Your task to perform on an android device: Check the news Image 0: 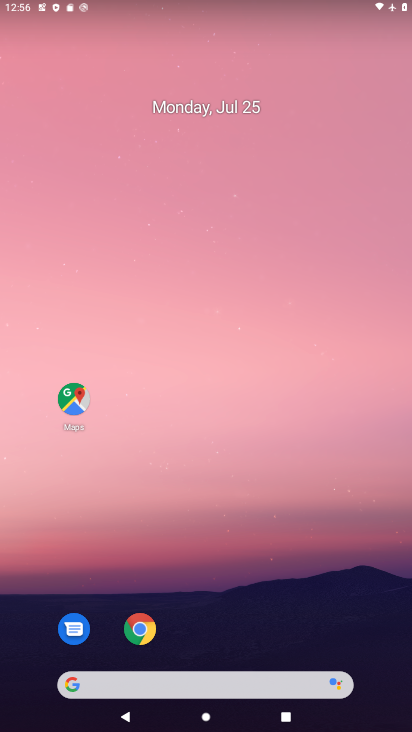
Step 0: drag from (170, 647) to (210, 103)
Your task to perform on an android device: Check the news Image 1: 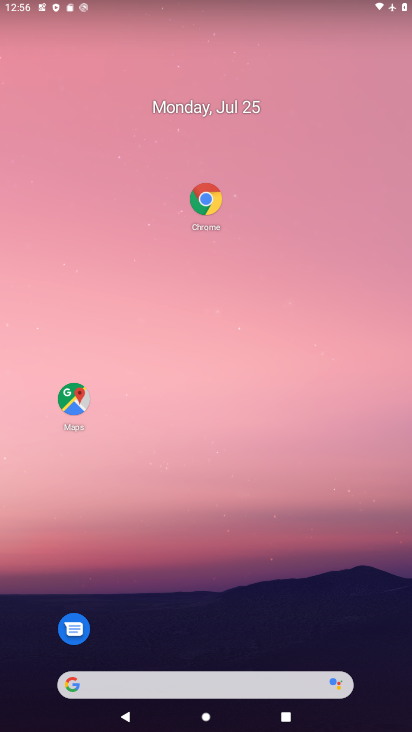
Step 1: drag from (273, 612) to (209, 254)
Your task to perform on an android device: Check the news Image 2: 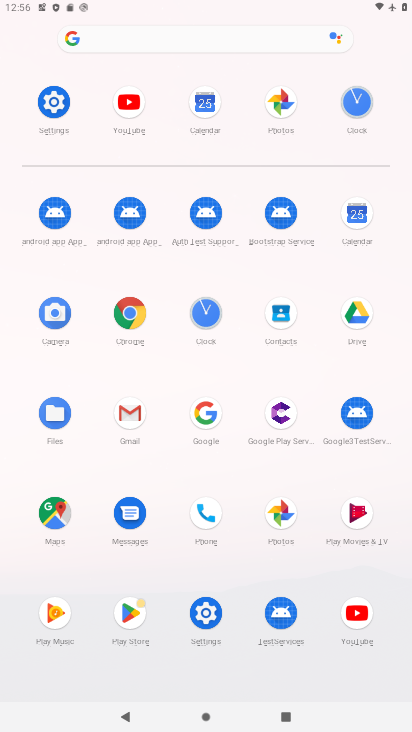
Step 2: click (39, 94)
Your task to perform on an android device: Check the news Image 3: 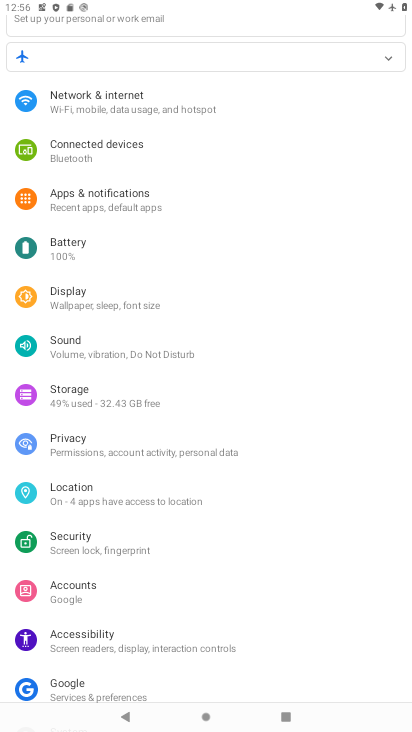
Step 3: press home button
Your task to perform on an android device: Check the news Image 4: 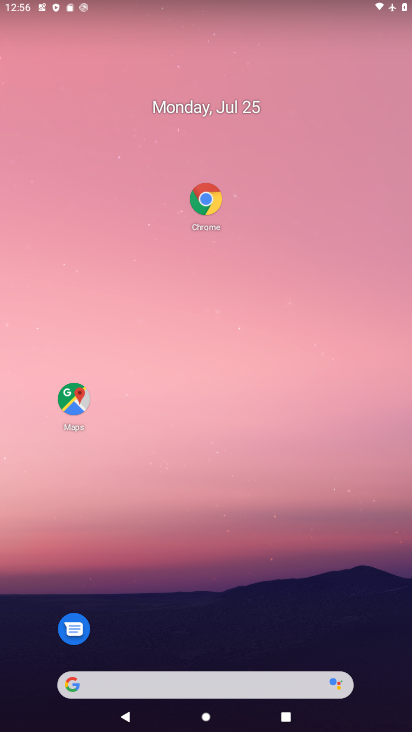
Step 4: click (176, 680)
Your task to perform on an android device: Check the news Image 5: 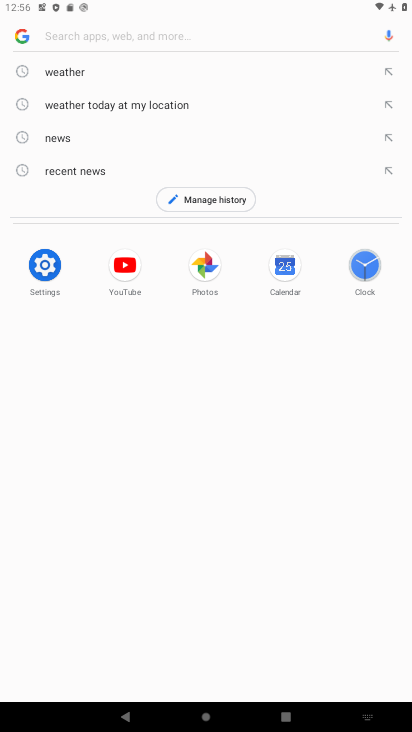
Step 5: type "news"
Your task to perform on an android device: Check the news Image 6: 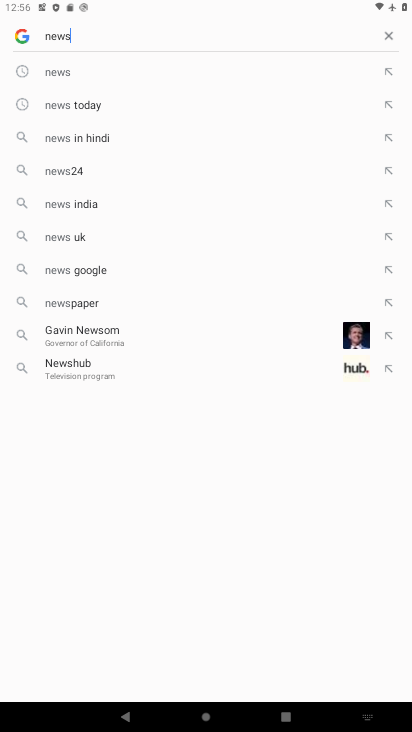
Step 6: click (200, 66)
Your task to perform on an android device: Check the news Image 7: 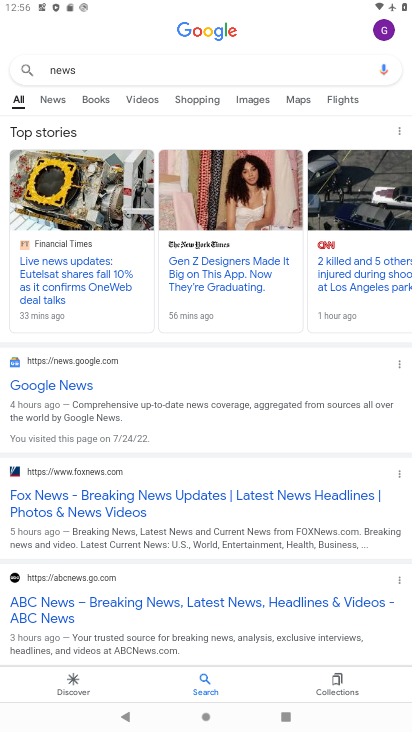
Step 7: task complete